Your task to perform on an android device: show emergency info Image 0: 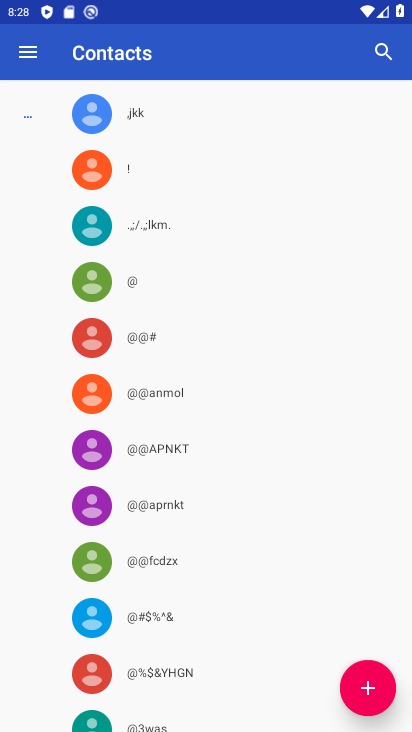
Step 0: drag from (196, 654) to (174, 535)
Your task to perform on an android device: show emergency info Image 1: 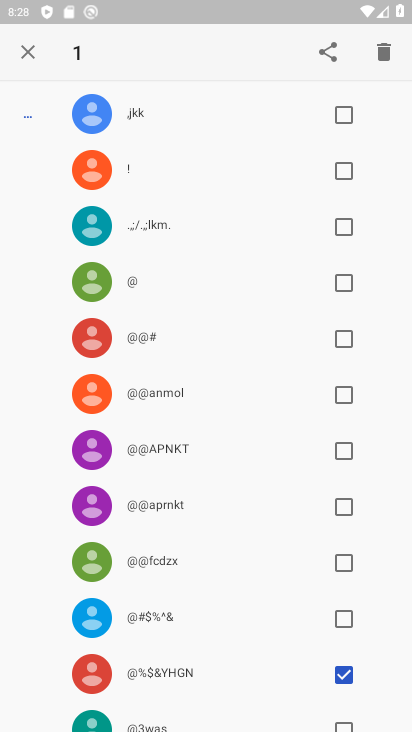
Step 1: press home button
Your task to perform on an android device: show emergency info Image 2: 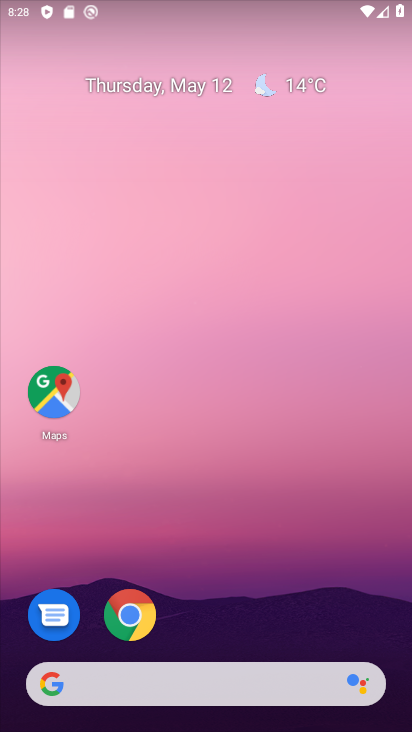
Step 2: drag from (210, 684) to (152, 7)
Your task to perform on an android device: show emergency info Image 3: 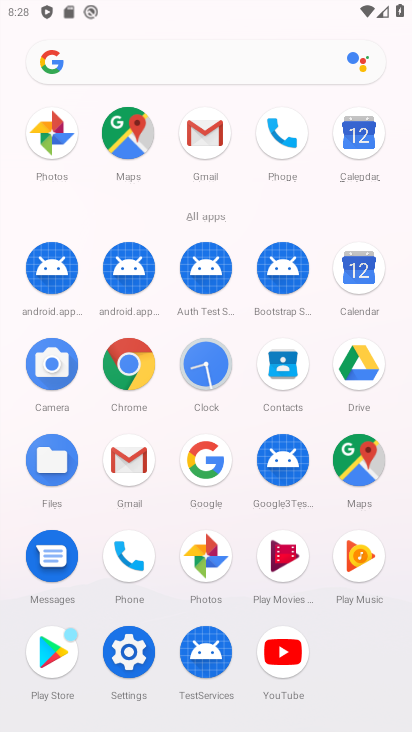
Step 3: click (126, 668)
Your task to perform on an android device: show emergency info Image 4: 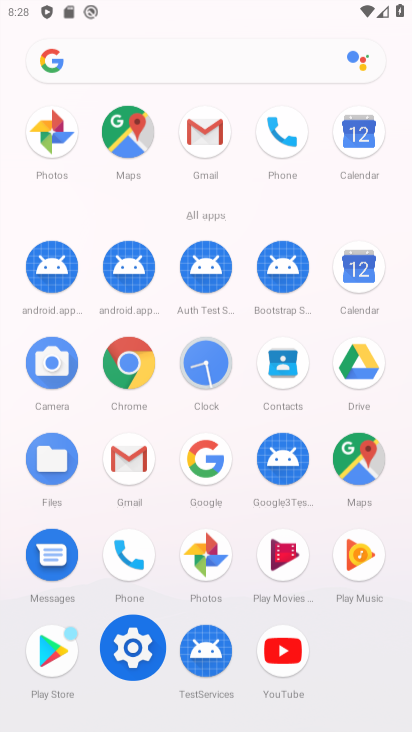
Step 4: drag from (130, 666) to (68, 241)
Your task to perform on an android device: show emergency info Image 5: 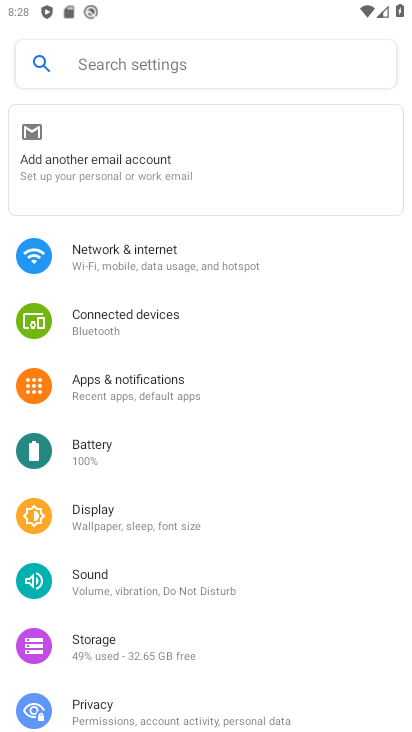
Step 5: drag from (110, 637) to (77, 87)
Your task to perform on an android device: show emergency info Image 6: 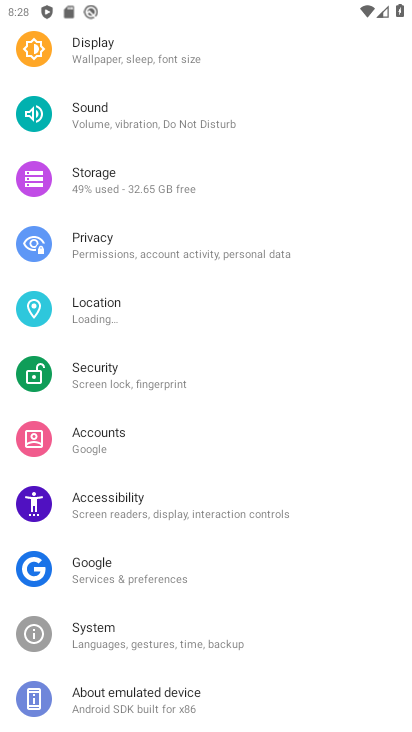
Step 6: click (216, 681)
Your task to perform on an android device: show emergency info Image 7: 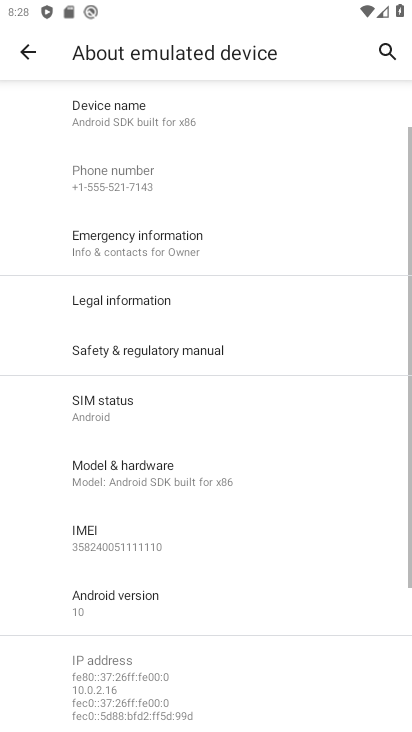
Step 7: click (75, 237)
Your task to perform on an android device: show emergency info Image 8: 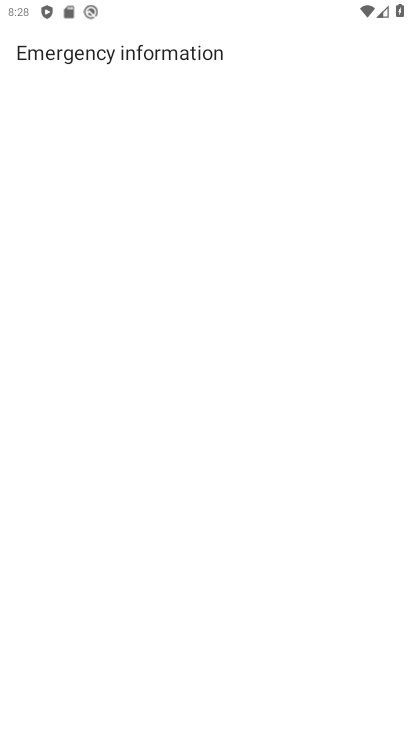
Step 8: task complete